Your task to perform on an android device: What is the capital of France? Image 0: 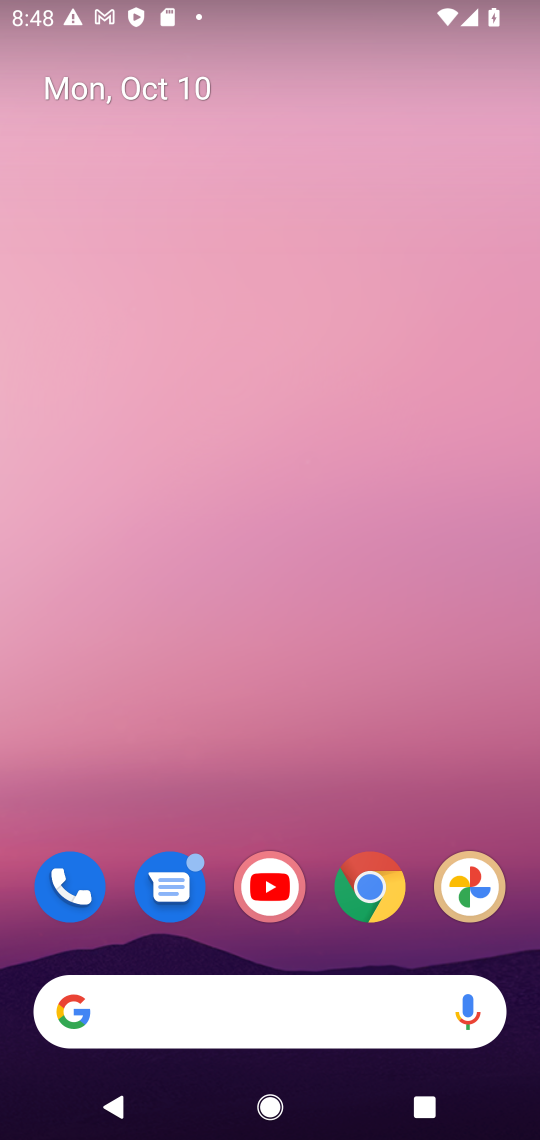
Step 0: click (383, 888)
Your task to perform on an android device: What is the capital of France? Image 1: 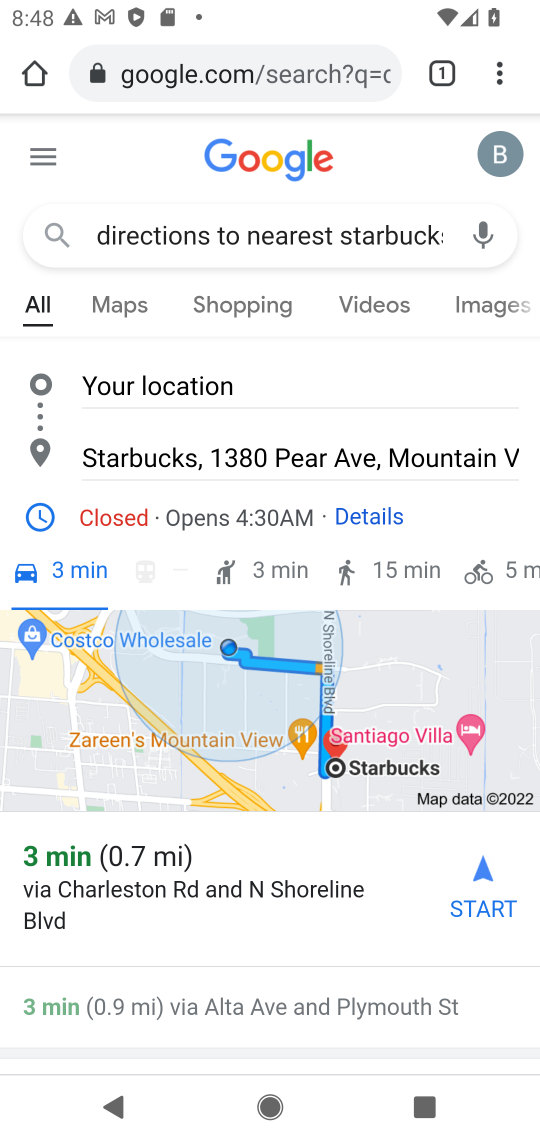
Step 1: click (216, 64)
Your task to perform on an android device: What is the capital of France? Image 2: 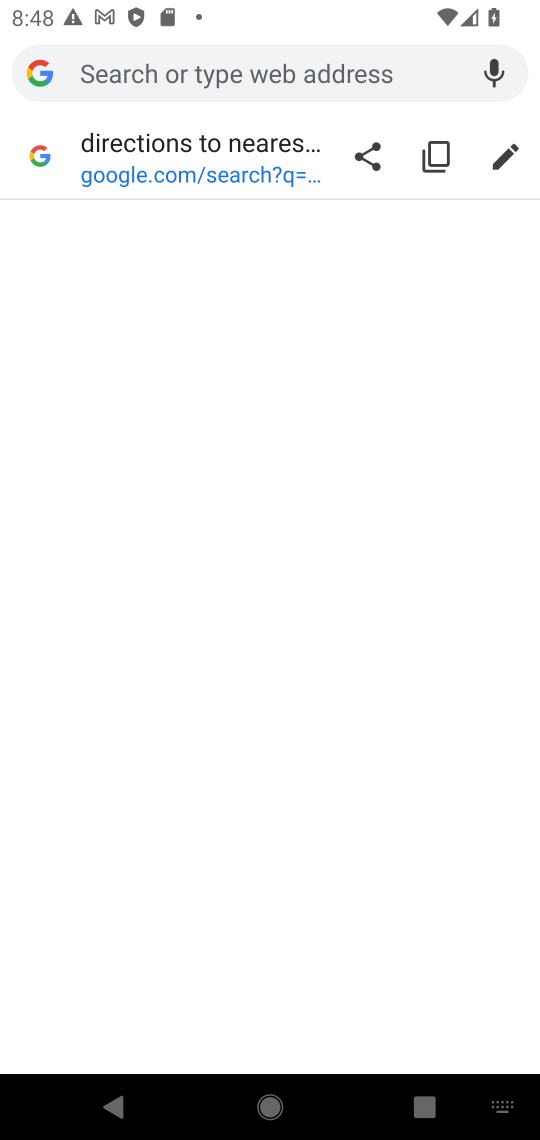
Step 2: type "france capital"
Your task to perform on an android device: What is the capital of France? Image 3: 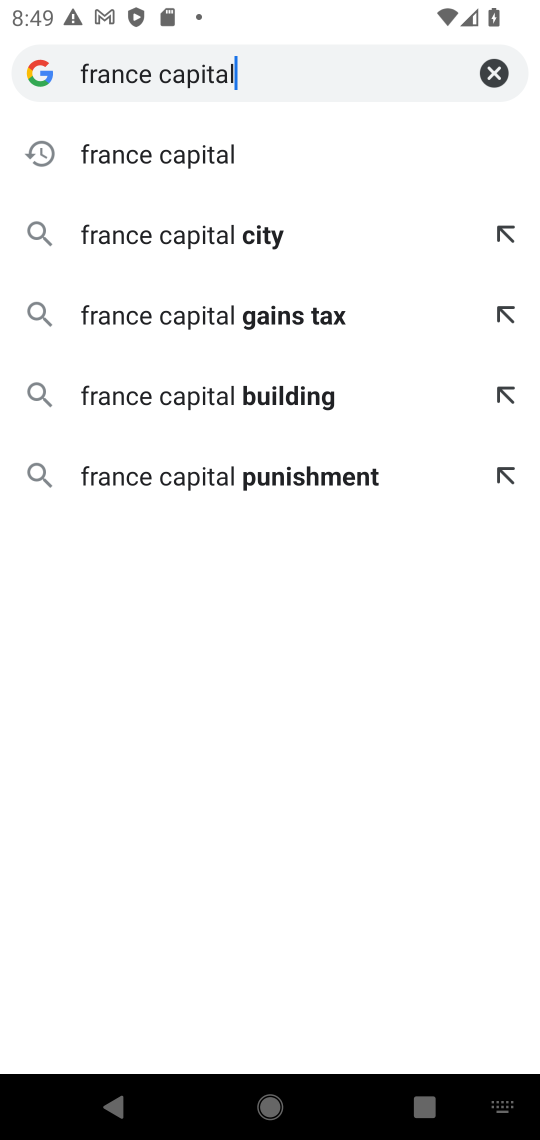
Step 3: click (261, 153)
Your task to perform on an android device: What is the capital of France? Image 4: 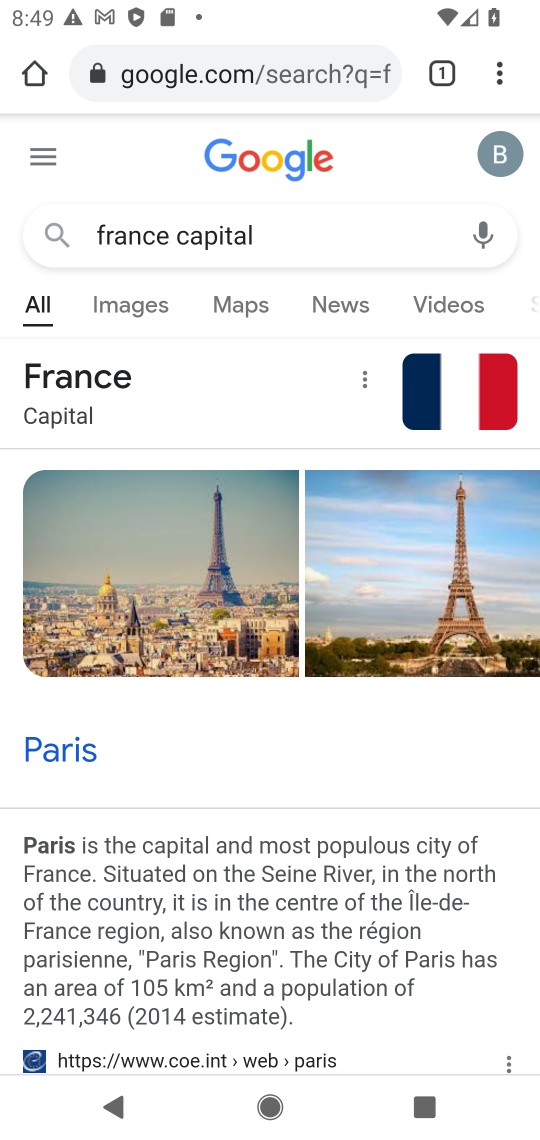
Step 4: task complete